Your task to perform on an android device: change the clock display to analog Image 0: 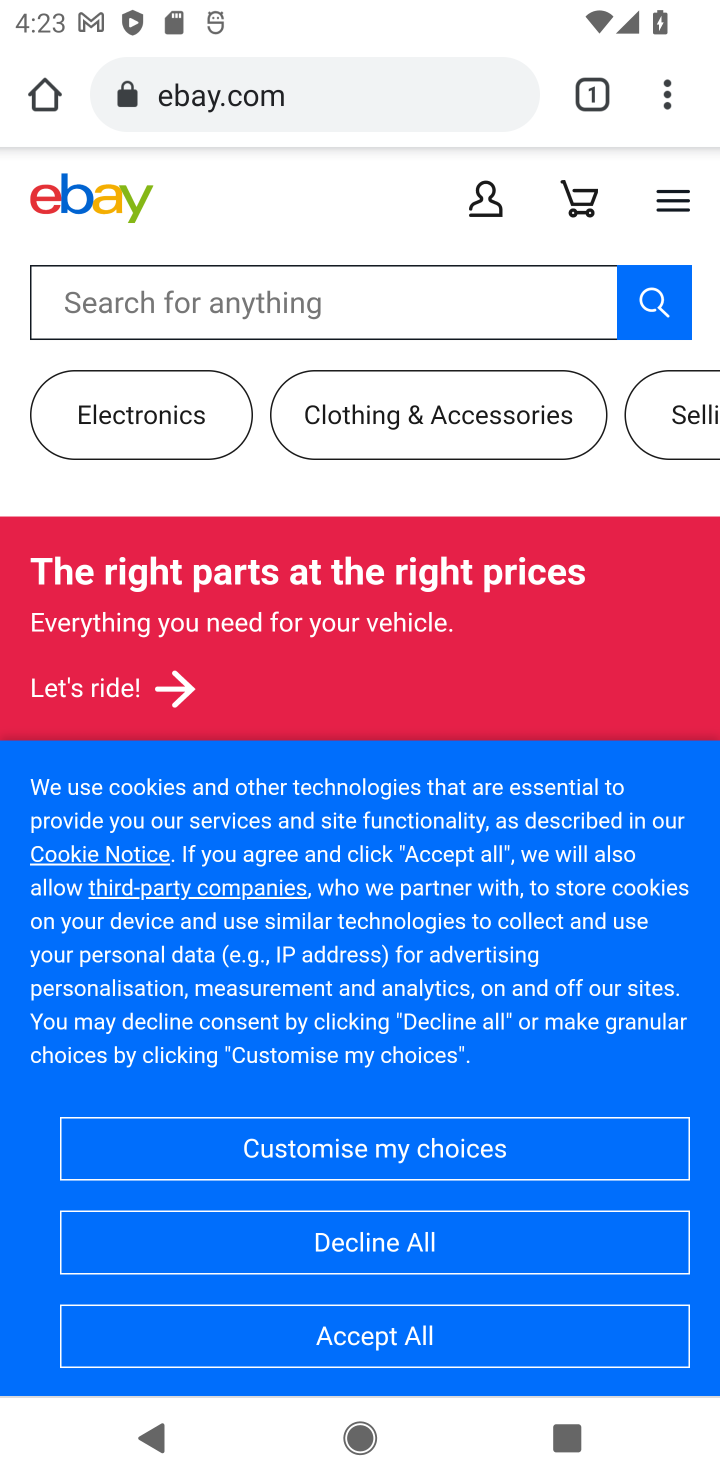
Step 0: press home button
Your task to perform on an android device: change the clock display to analog Image 1: 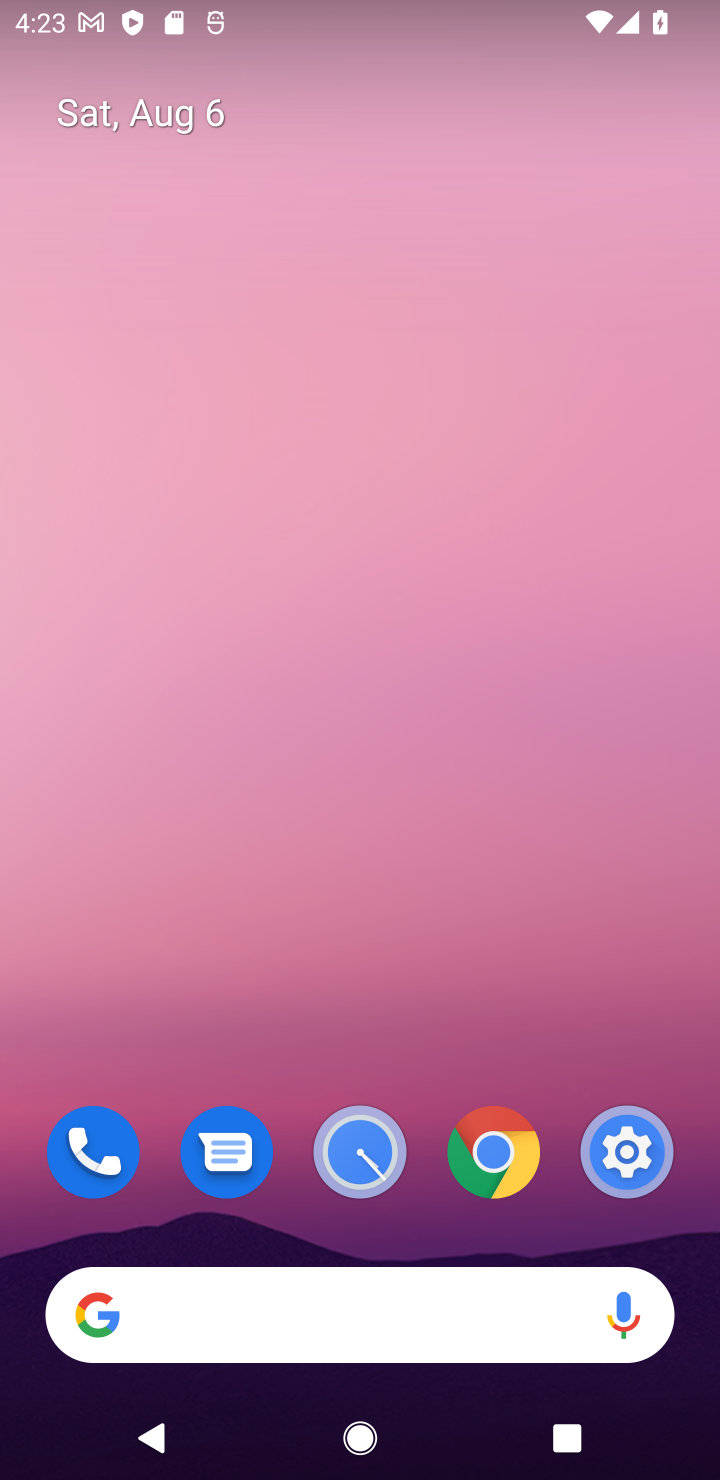
Step 1: drag from (554, 1018) to (548, 101)
Your task to perform on an android device: change the clock display to analog Image 2: 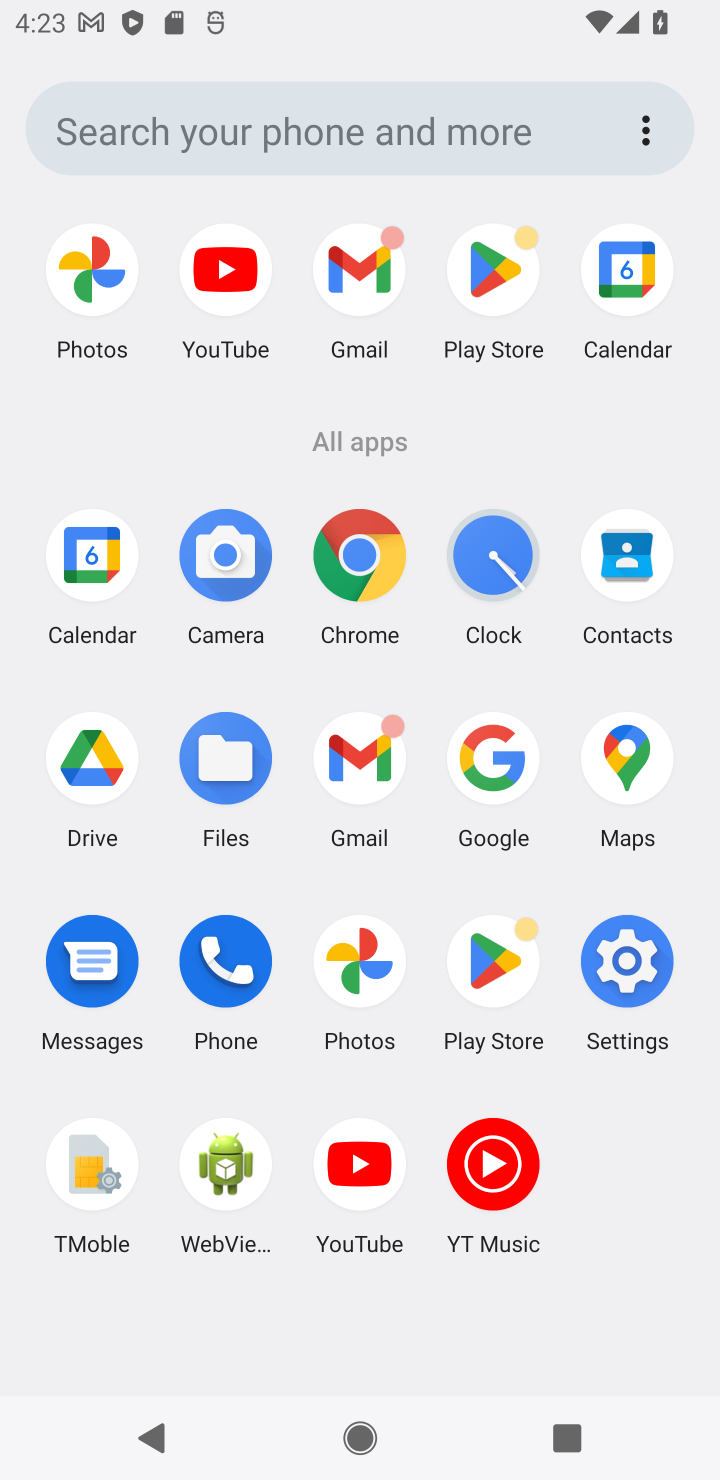
Step 2: click (506, 564)
Your task to perform on an android device: change the clock display to analog Image 3: 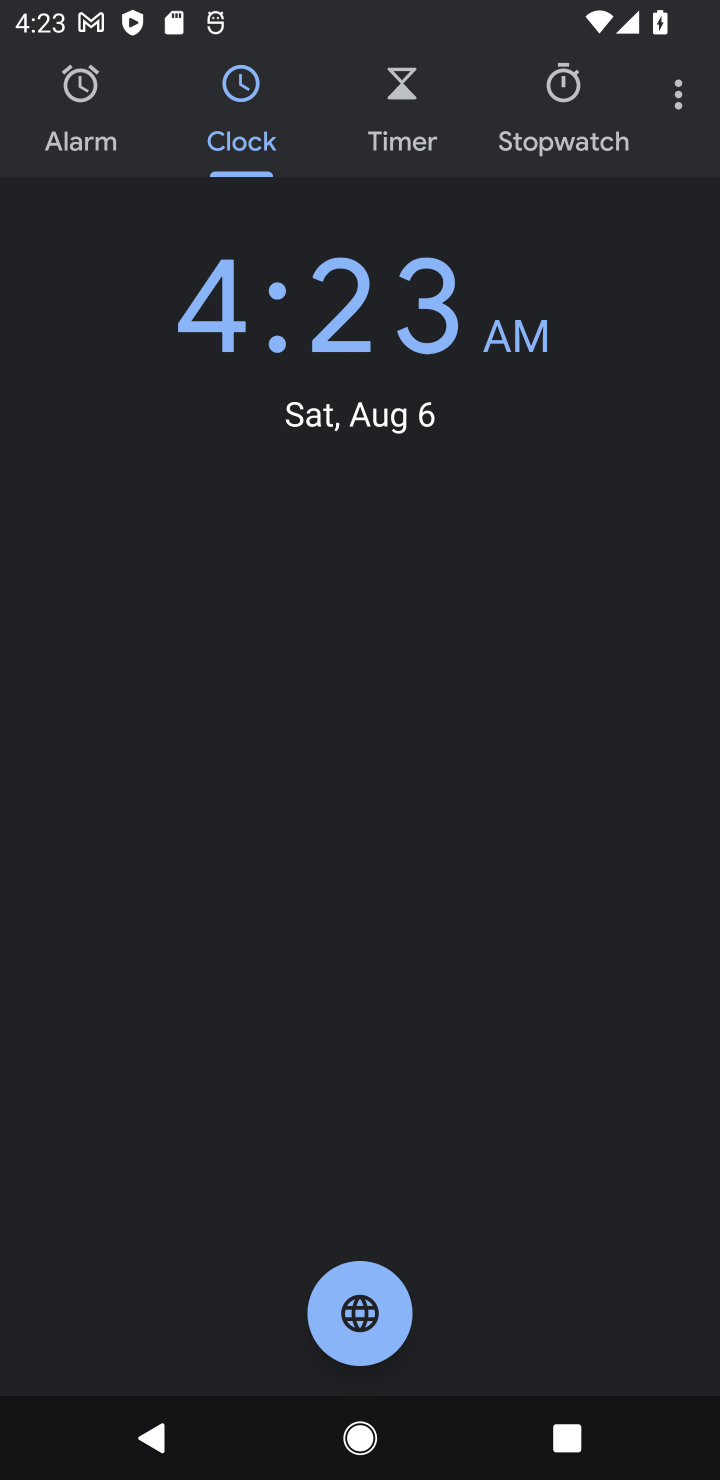
Step 3: click (683, 90)
Your task to perform on an android device: change the clock display to analog Image 4: 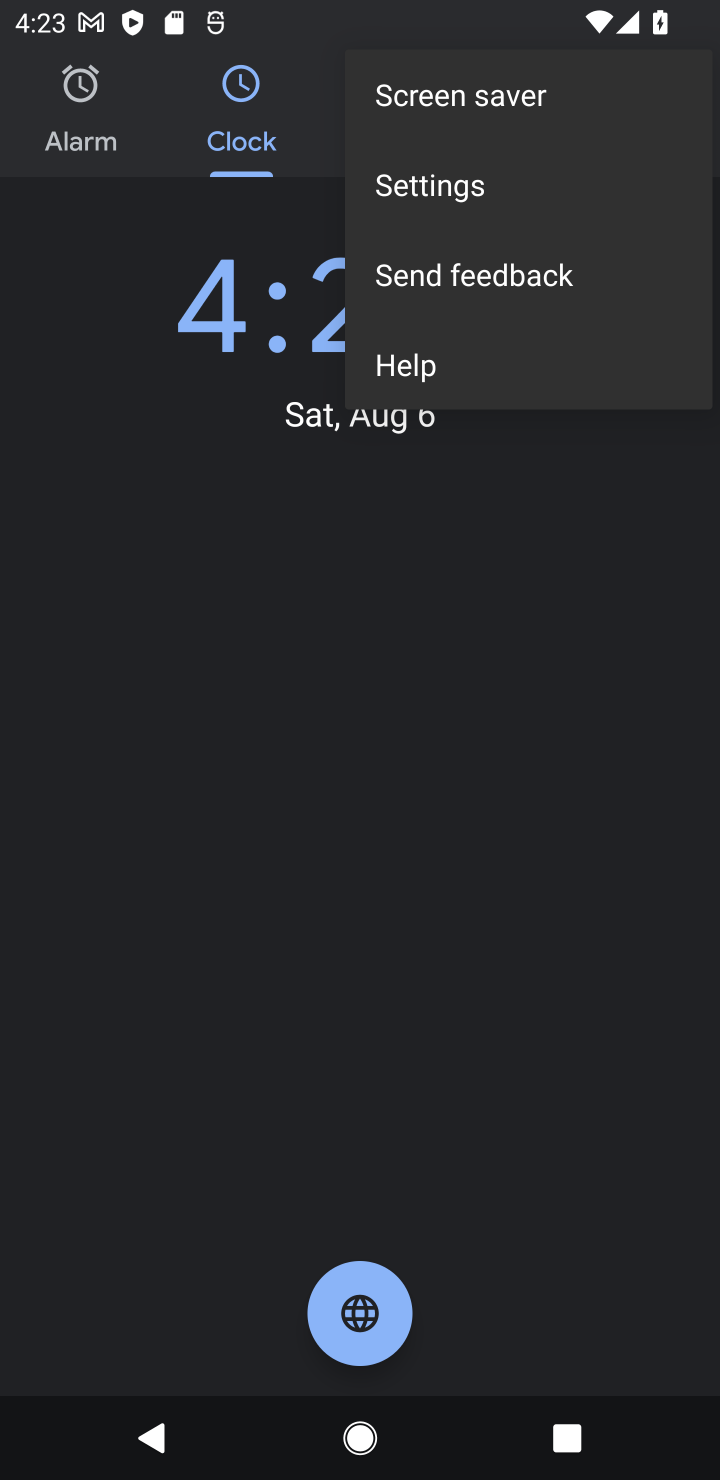
Step 4: click (484, 211)
Your task to perform on an android device: change the clock display to analog Image 5: 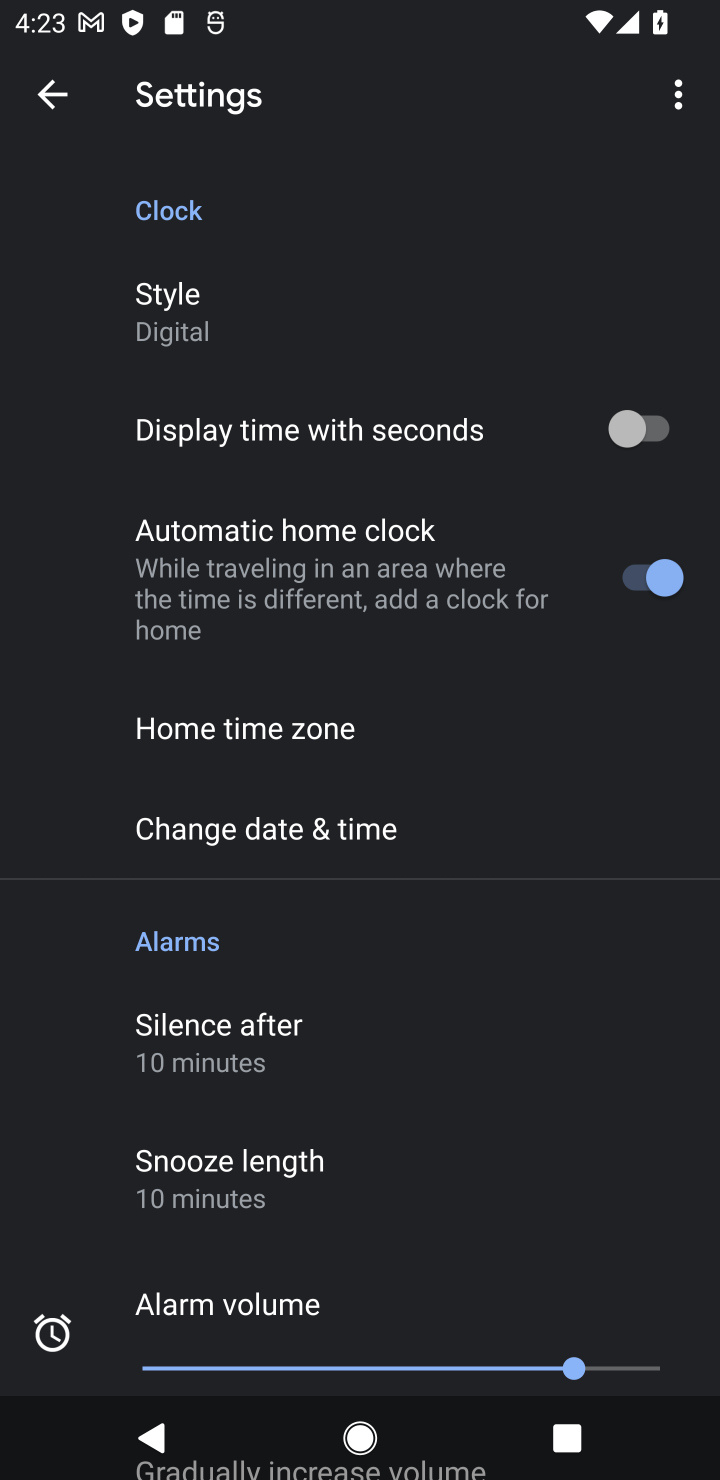
Step 5: click (206, 292)
Your task to perform on an android device: change the clock display to analog Image 6: 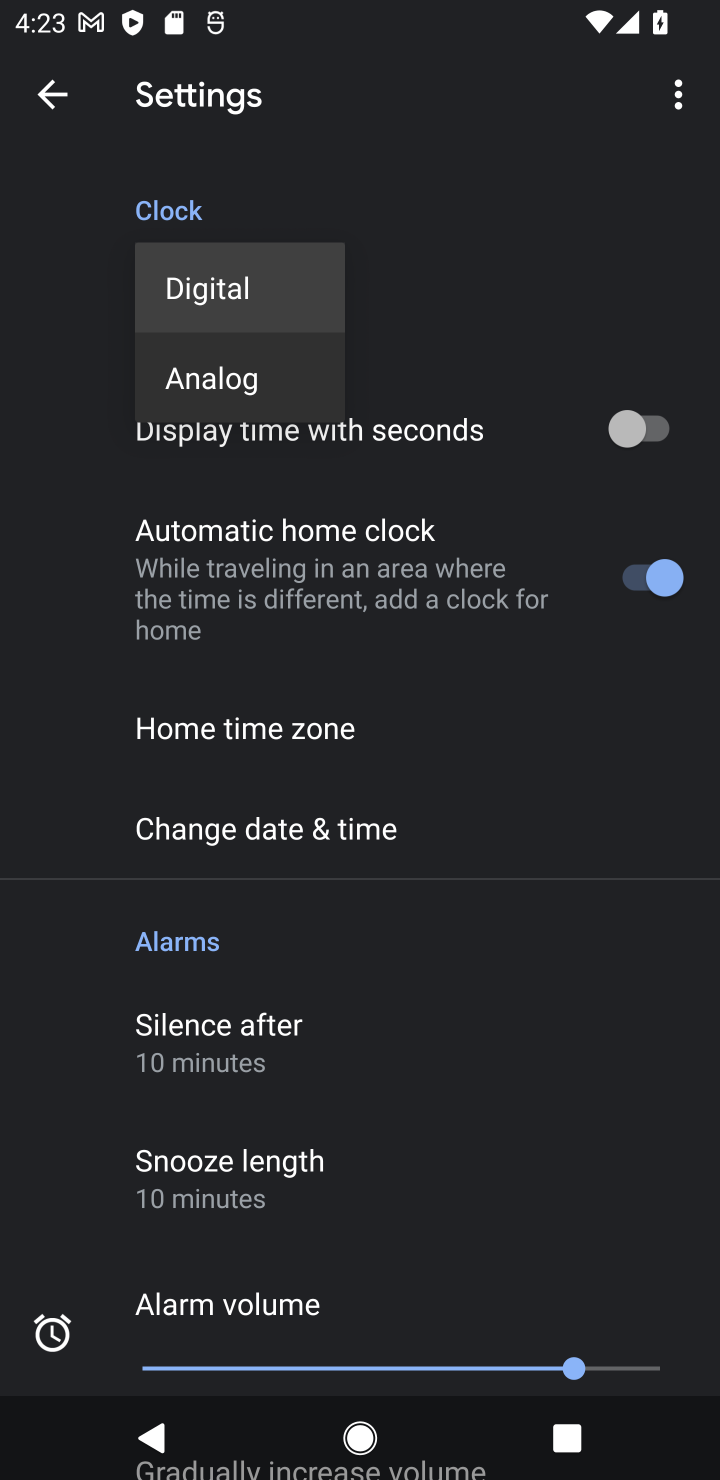
Step 6: click (225, 381)
Your task to perform on an android device: change the clock display to analog Image 7: 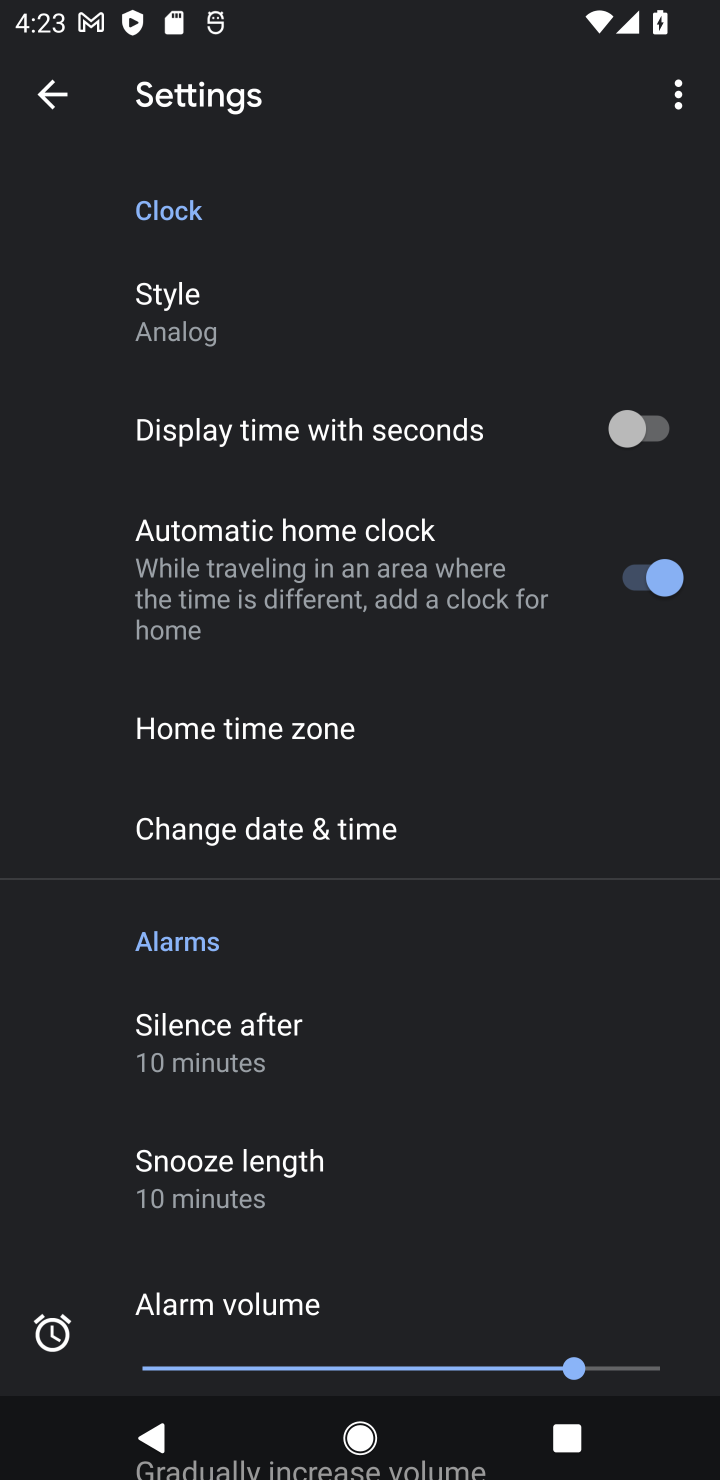
Step 7: task complete